Your task to perform on an android device: What's on my calendar tomorrow? Image 0: 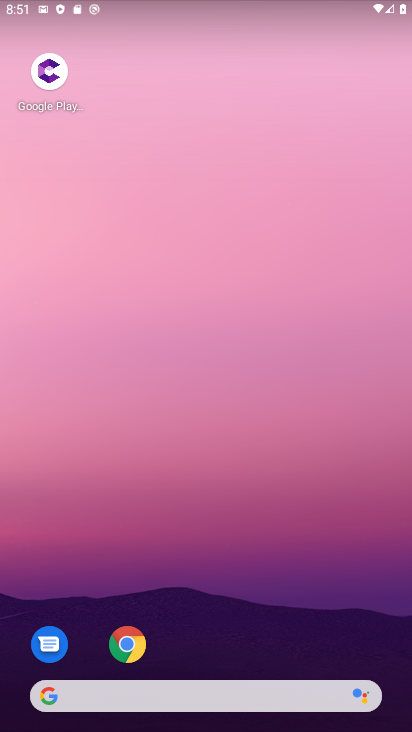
Step 0: drag from (256, 635) to (265, 65)
Your task to perform on an android device: What's on my calendar tomorrow? Image 1: 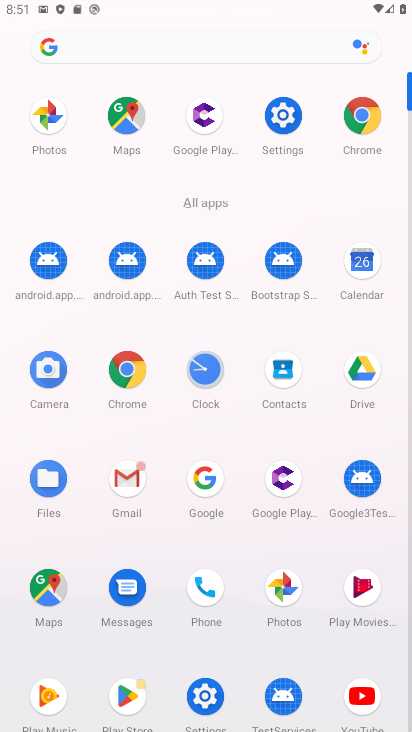
Step 1: click (374, 262)
Your task to perform on an android device: What's on my calendar tomorrow? Image 2: 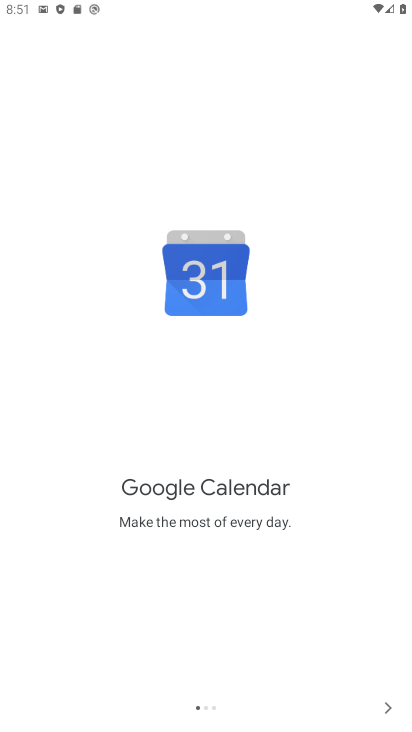
Step 2: click (388, 702)
Your task to perform on an android device: What's on my calendar tomorrow? Image 3: 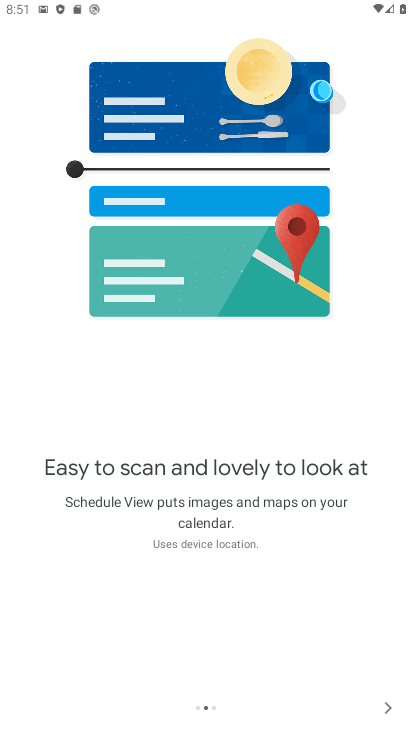
Step 3: click (388, 702)
Your task to perform on an android device: What's on my calendar tomorrow? Image 4: 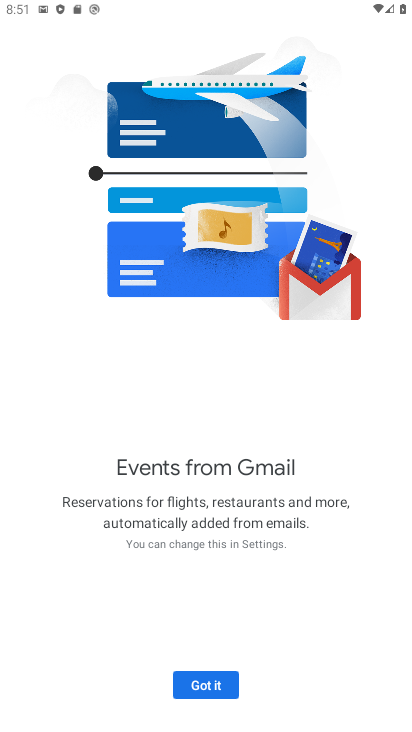
Step 4: click (201, 685)
Your task to perform on an android device: What's on my calendar tomorrow? Image 5: 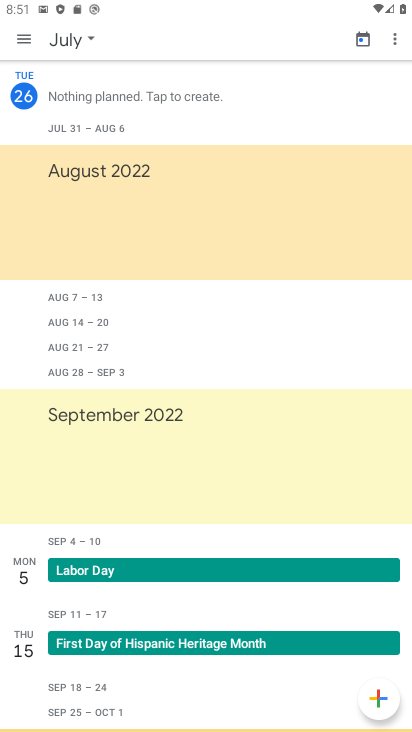
Step 5: click (61, 45)
Your task to perform on an android device: What's on my calendar tomorrow? Image 6: 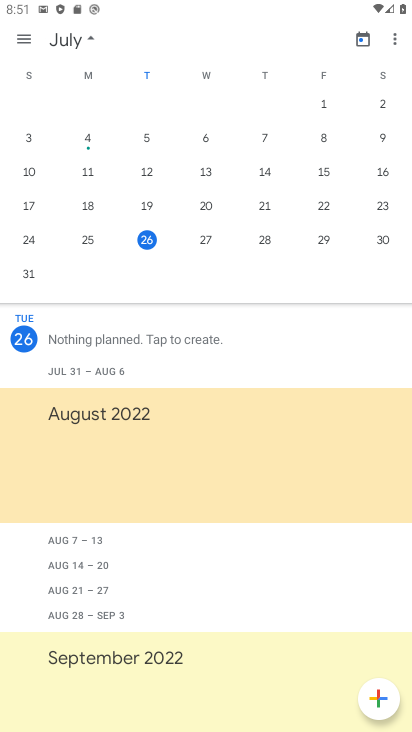
Step 6: click (197, 241)
Your task to perform on an android device: What's on my calendar tomorrow? Image 7: 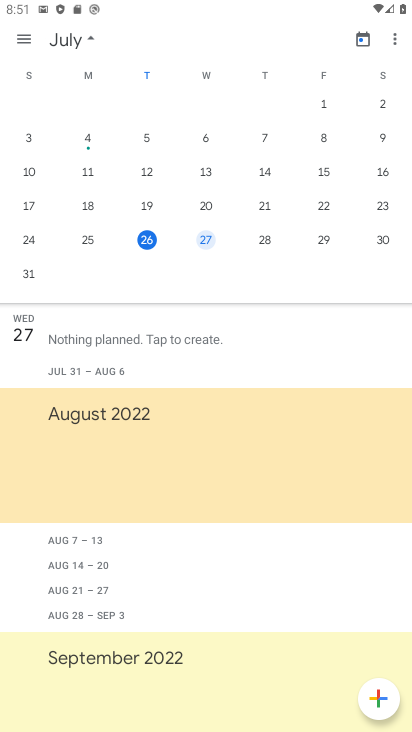
Step 7: task complete